Your task to perform on an android device: add a contact in the contacts app Image 0: 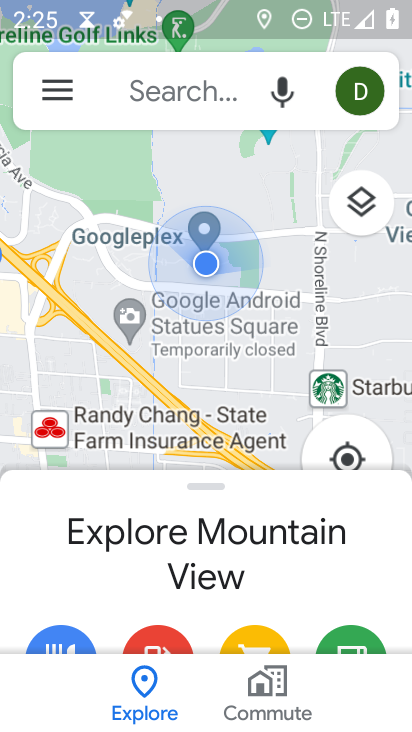
Step 0: press home button
Your task to perform on an android device: add a contact in the contacts app Image 1: 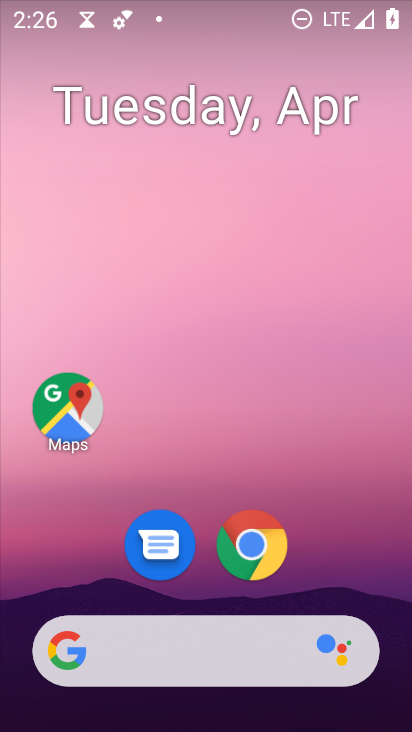
Step 1: drag from (398, 521) to (351, 43)
Your task to perform on an android device: add a contact in the contacts app Image 2: 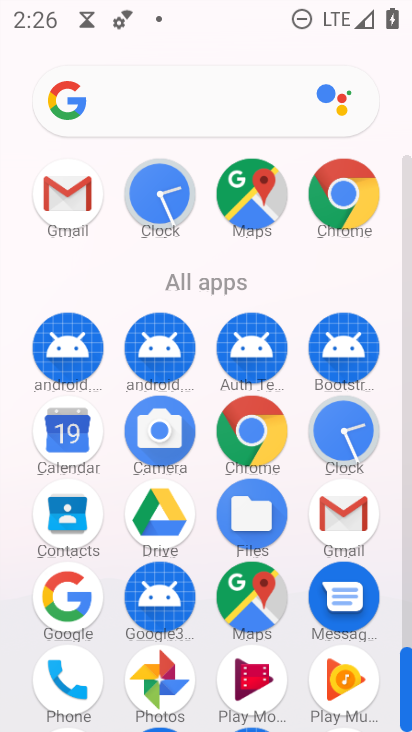
Step 2: click (62, 512)
Your task to perform on an android device: add a contact in the contacts app Image 3: 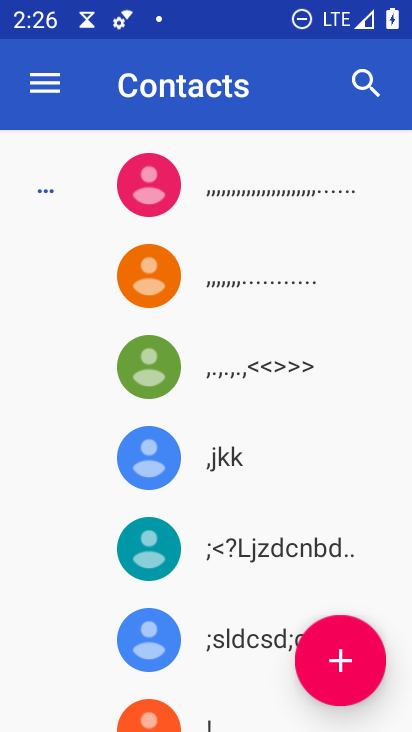
Step 3: click (342, 657)
Your task to perform on an android device: add a contact in the contacts app Image 4: 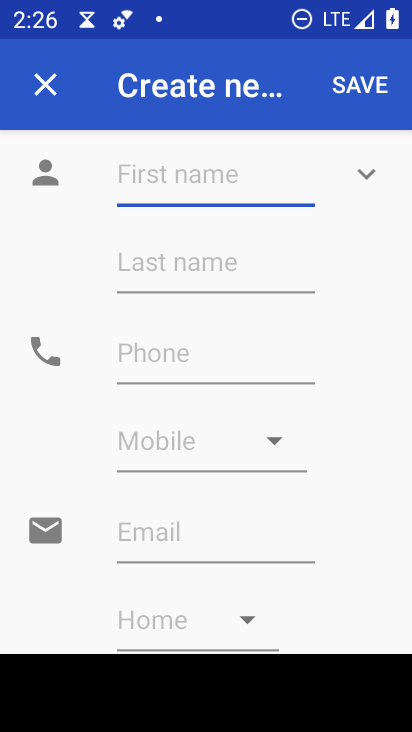
Step 4: click (172, 184)
Your task to perform on an android device: add a contact in the contacts app Image 5: 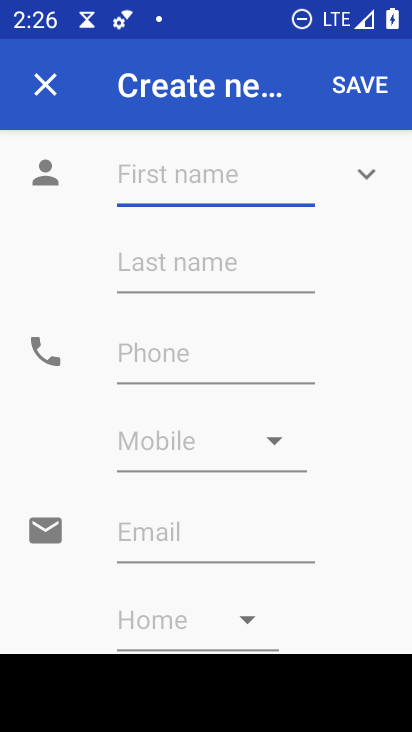
Step 5: type "jskdjk"
Your task to perform on an android device: add a contact in the contacts app Image 6: 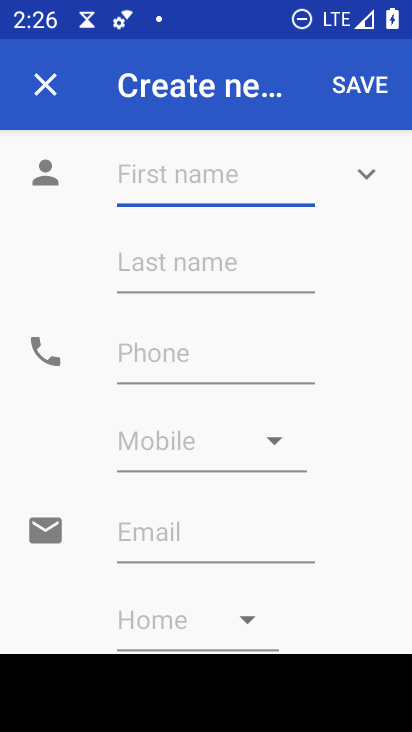
Step 6: click (264, 376)
Your task to perform on an android device: add a contact in the contacts app Image 7: 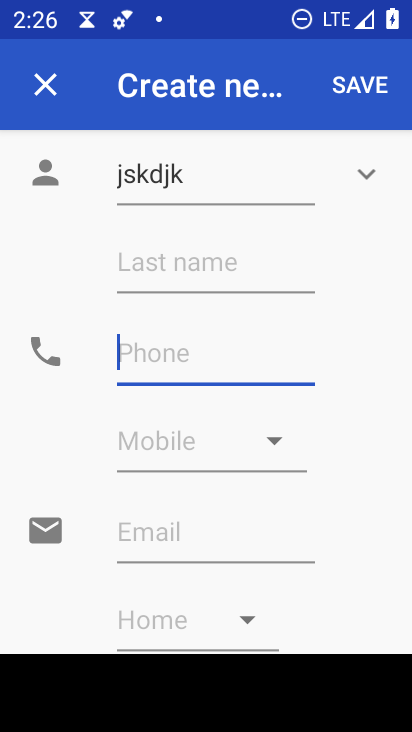
Step 7: type "6544455455"
Your task to perform on an android device: add a contact in the contacts app Image 8: 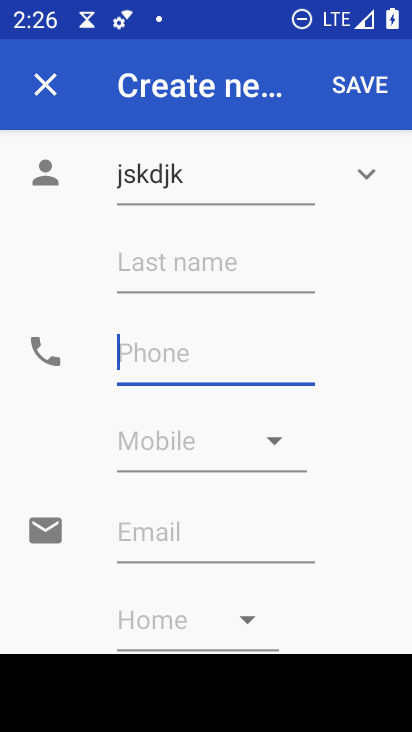
Step 8: click (390, 448)
Your task to perform on an android device: add a contact in the contacts app Image 9: 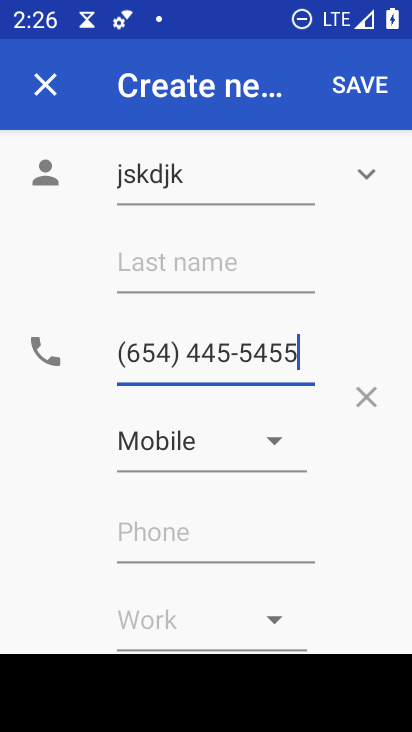
Step 9: click (345, 92)
Your task to perform on an android device: add a contact in the contacts app Image 10: 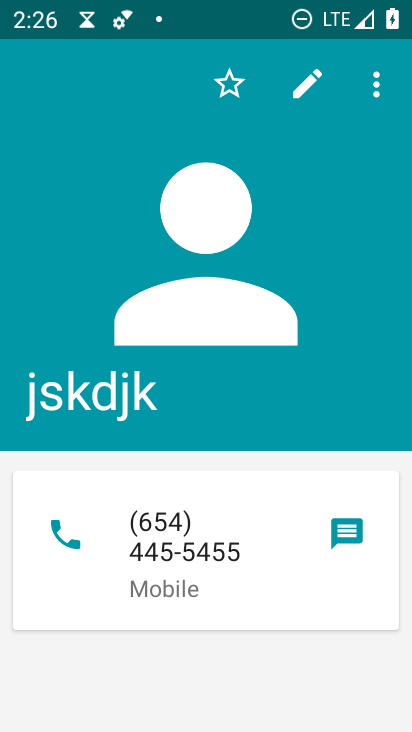
Step 10: task complete